Your task to perform on an android device: Open ESPN.com Image 0: 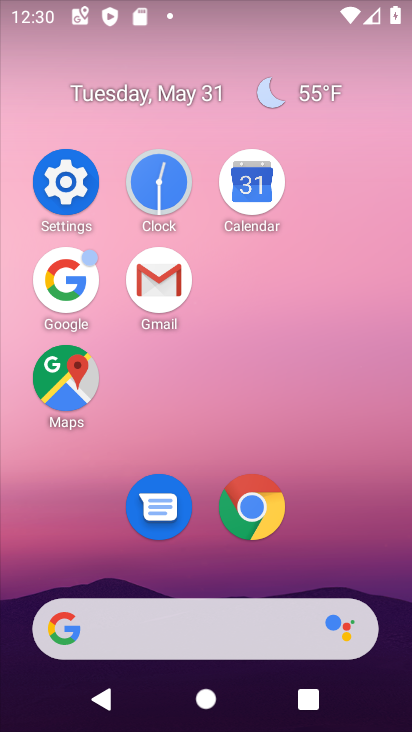
Step 0: click (258, 495)
Your task to perform on an android device: Open ESPN.com Image 1: 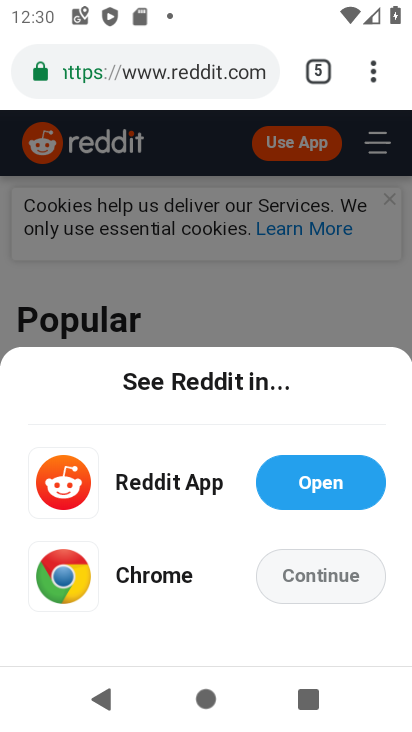
Step 1: click (317, 66)
Your task to perform on an android device: Open ESPN.com Image 2: 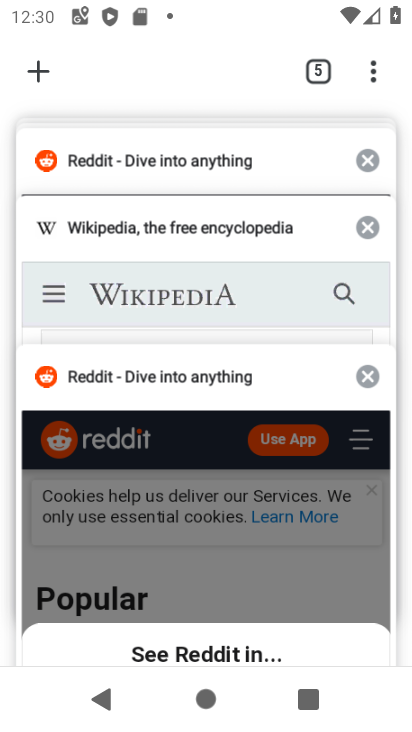
Step 2: drag from (179, 205) to (153, 576)
Your task to perform on an android device: Open ESPN.com Image 3: 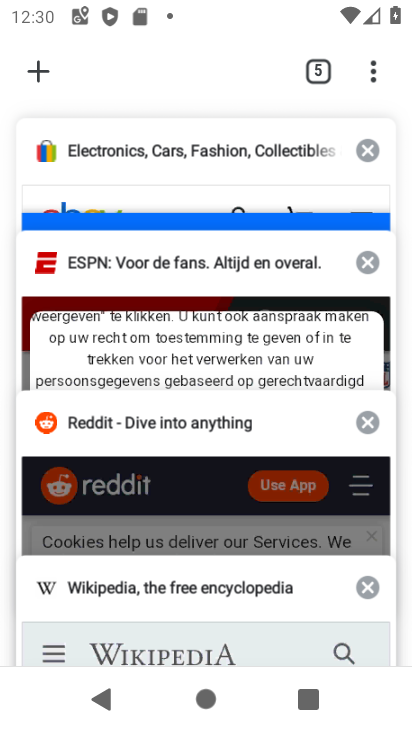
Step 3: click (131, 248)
Your task to perform on an android device: Open ESPN.com Image 4: 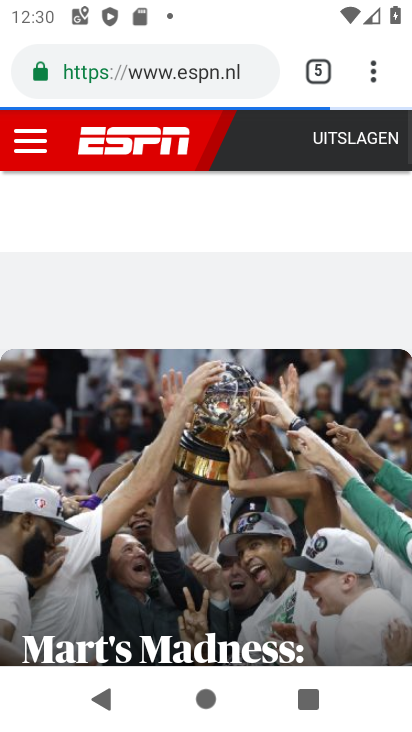
Step 4: task complete